Your task to perform on an android device: open wifi settings Image 0: 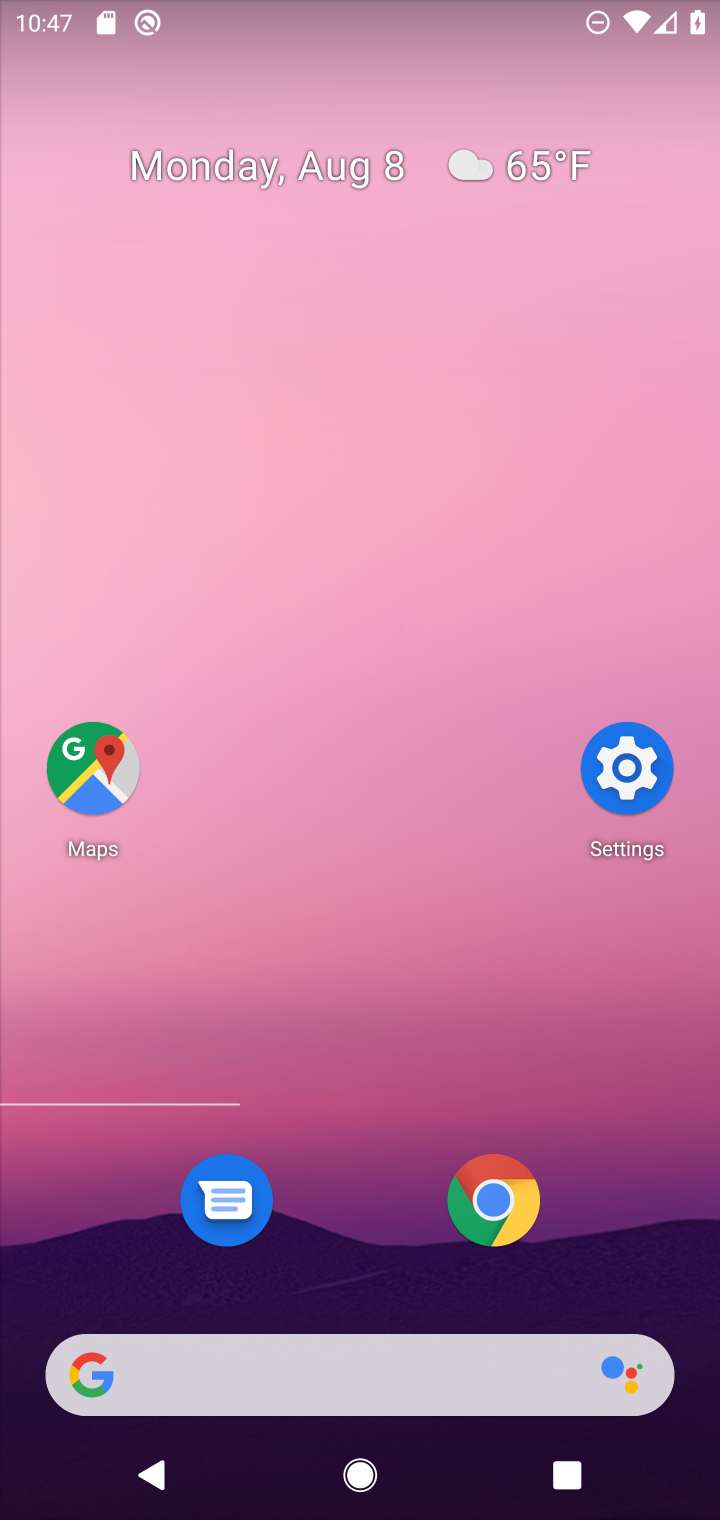
Step 0: press home button
Your task to perform on an android device: open wifi settings Image 1: 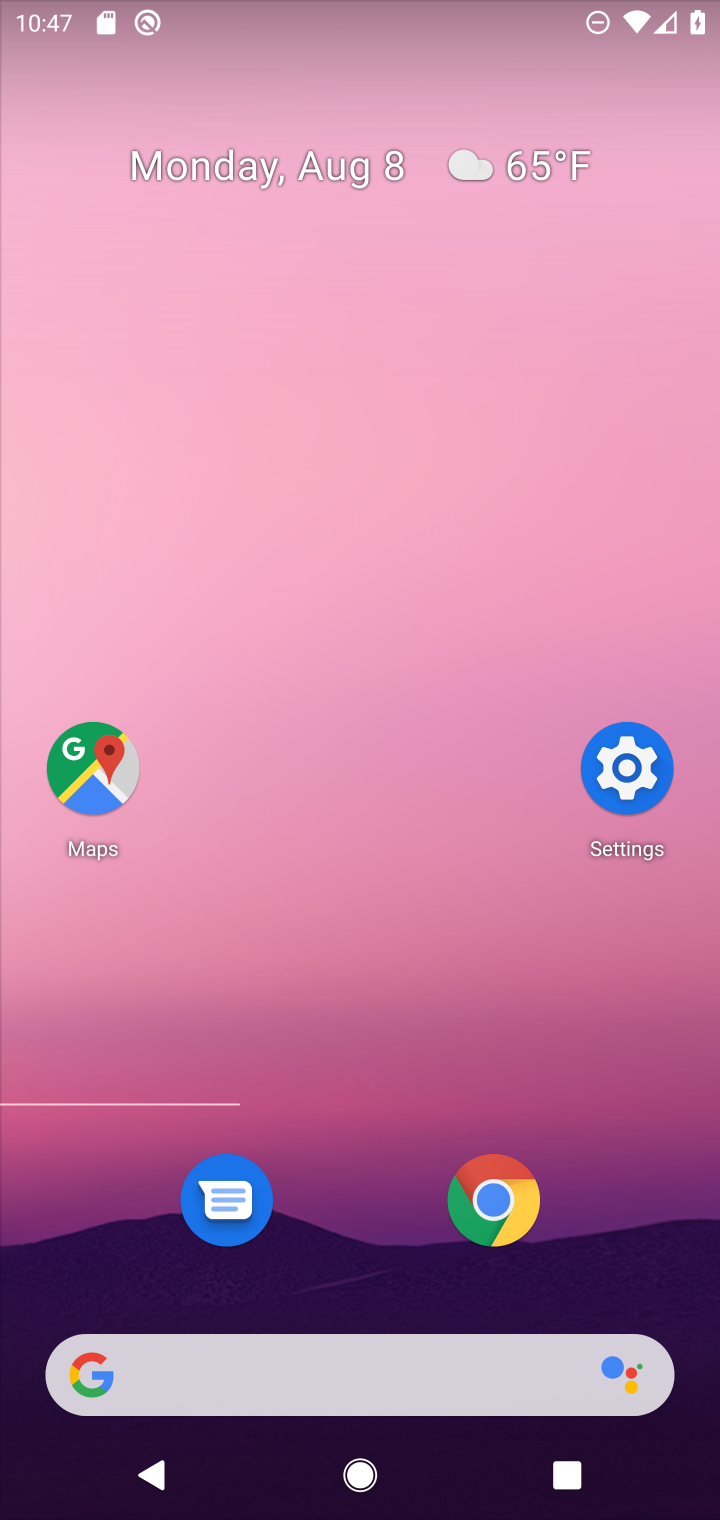
Step 1: click (632, 750)
Your task to perform on an android device: open wifi settings Image 2: 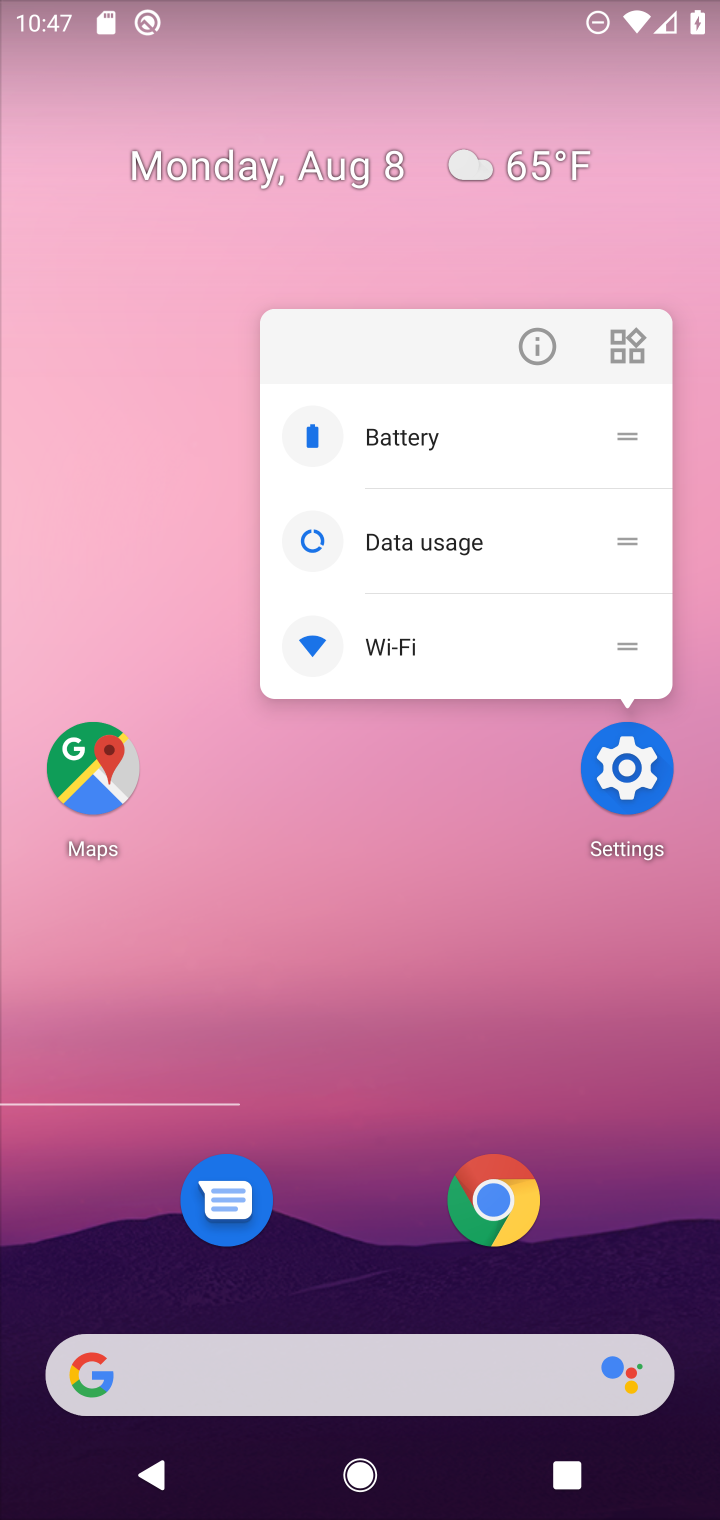
Step 2: click (630, 759)
Your task to perform on an android device: open wifi settings Image 3: 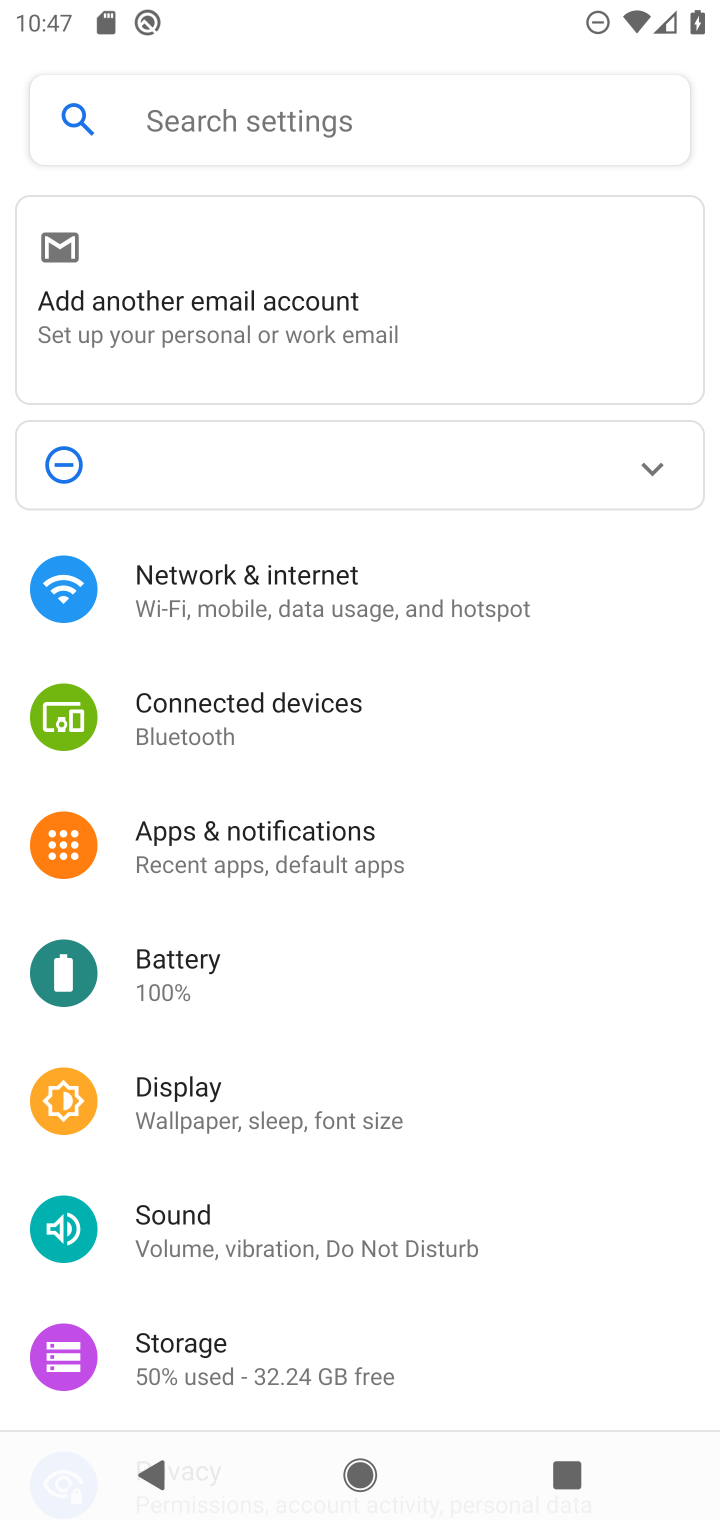
Step 3: click (270, 582)
Your task to perform on an android device: open wifi settings Image 4: 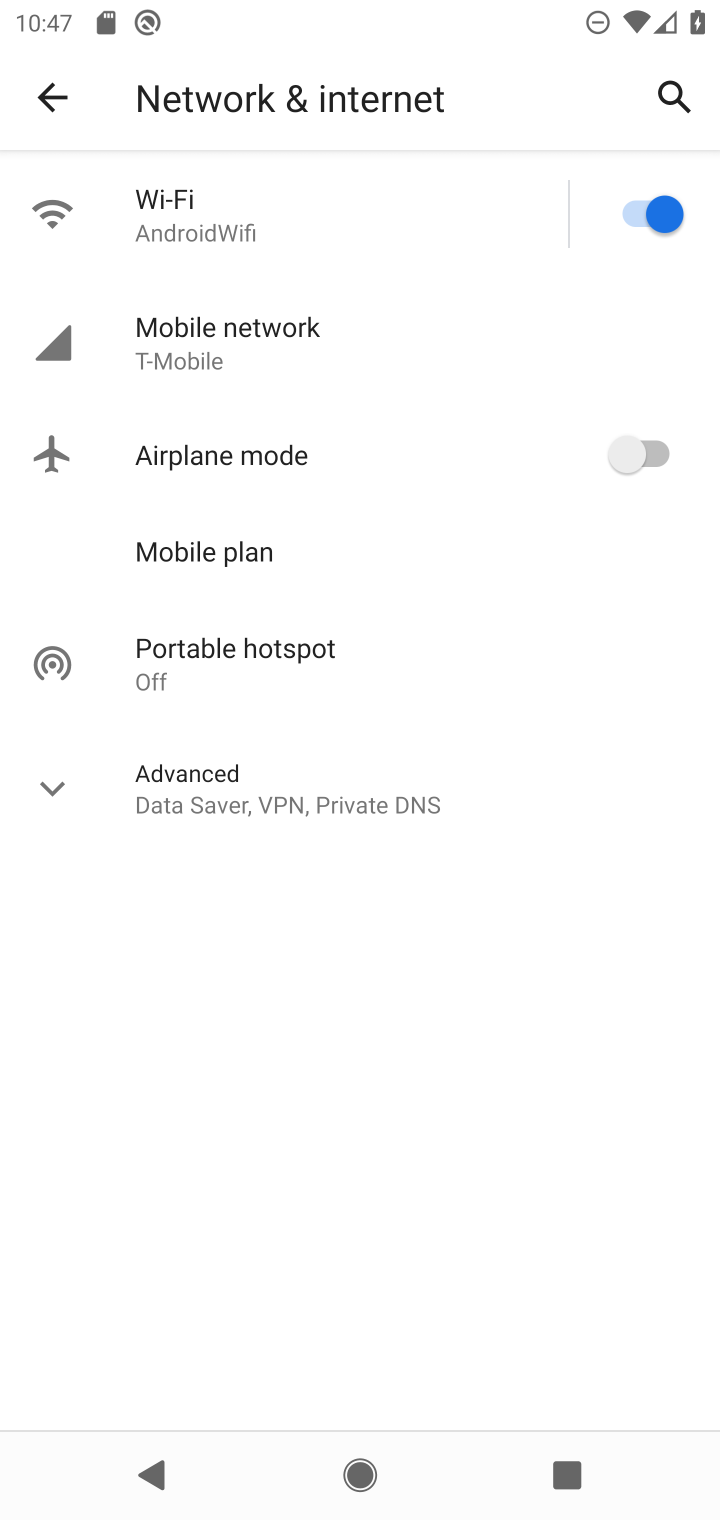
Step 4: click (185, 208)
Your task to perform on an android device: open wifi settings Image 5: 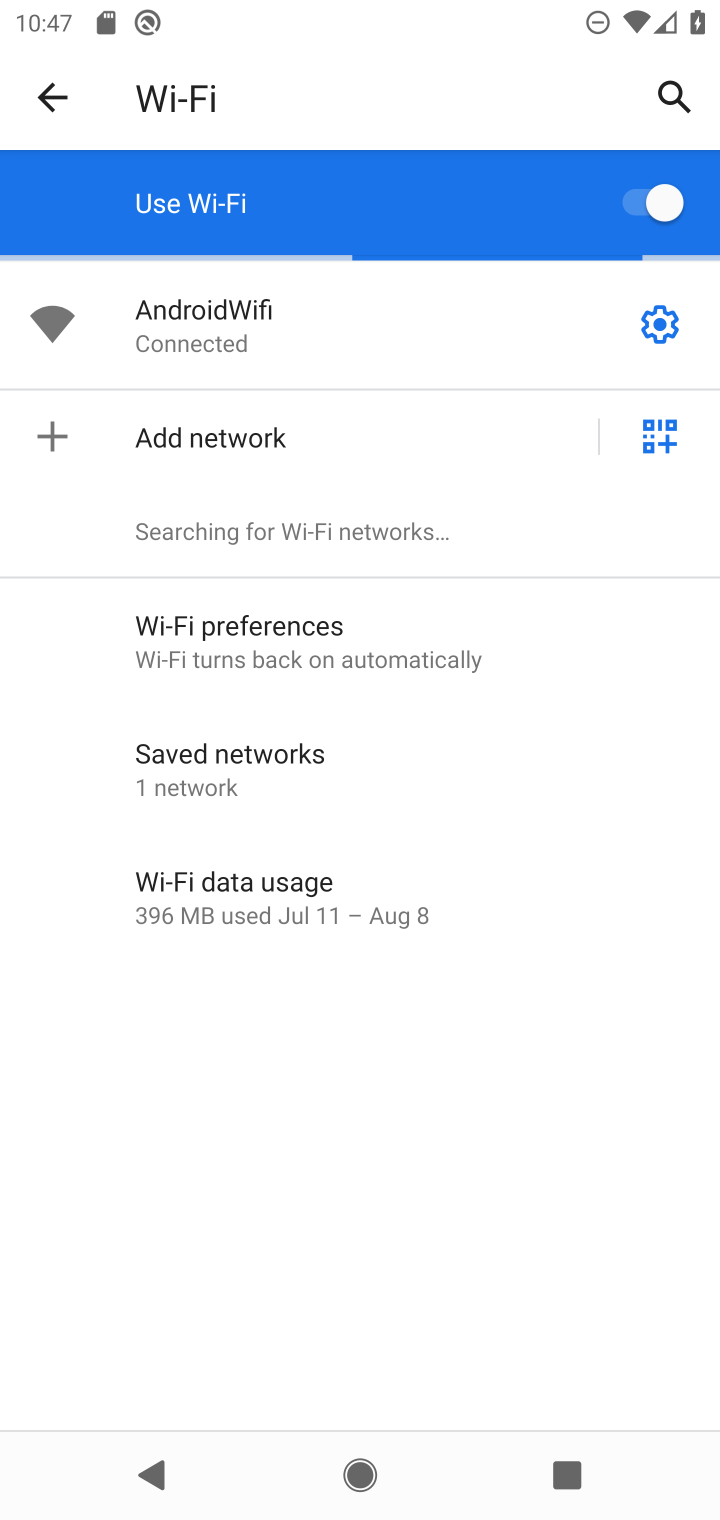
Step 5: task complete